Your task to perform on an android device: turn on wifi Image 0: 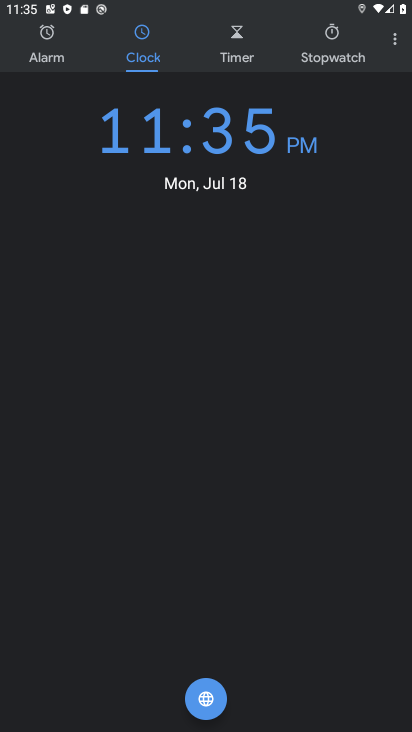
Step 0: press home button
Your task to perform on an android device: turn on wifi Image 1: 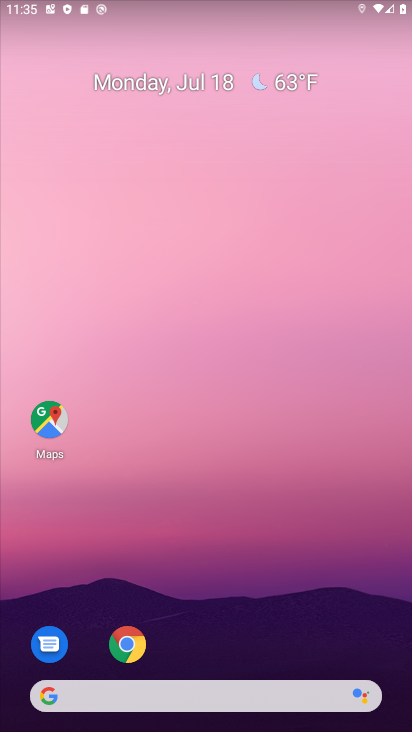
Step 1: drag from (210, 726) to (225, 270)
Your task to perform on an android device: turn on wifi Image 2: 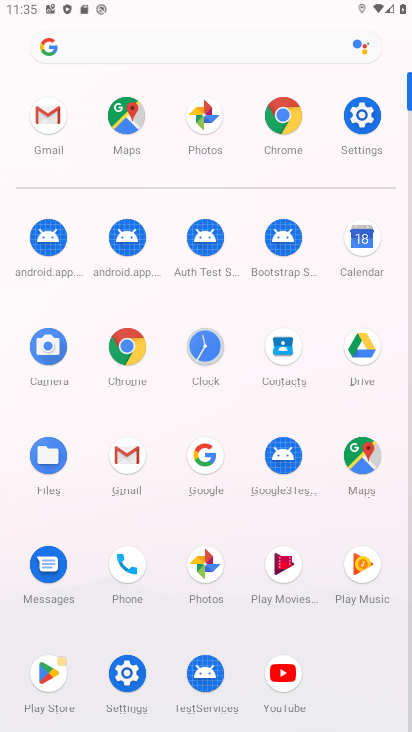
Step 2: click (361, 113)
Your task to perform on an android device: turn on wifi Image 3: 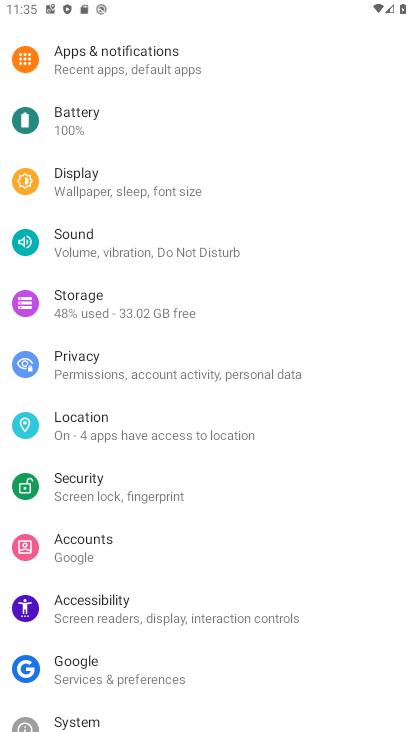
Step 3: drag from (174, 122) to (182, 528)
Your task to perform on an android device: turn on wifi Image 4: 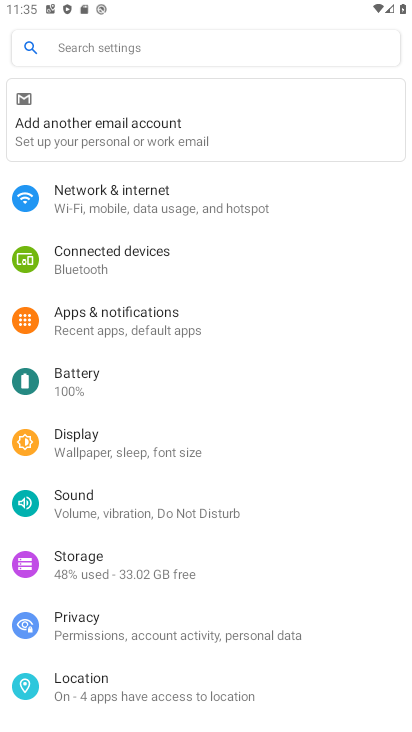
Step 4: click (103, 212)
Your task to perform on an android device: turn on wifi Image 5: 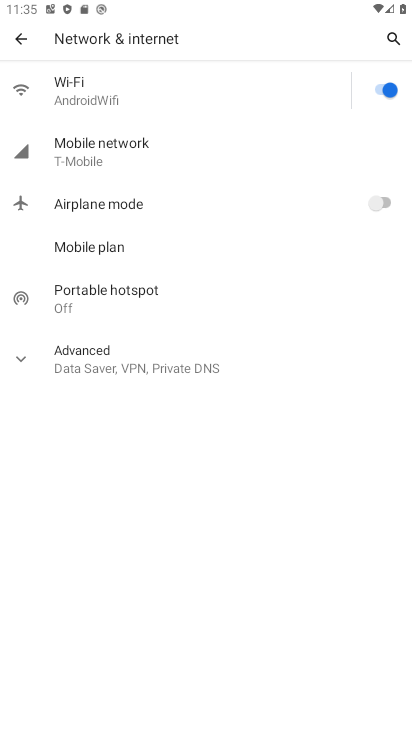
Step 5: task complete